Your task to perform on an android device: find snoozed emails in the gmail app Image 0: 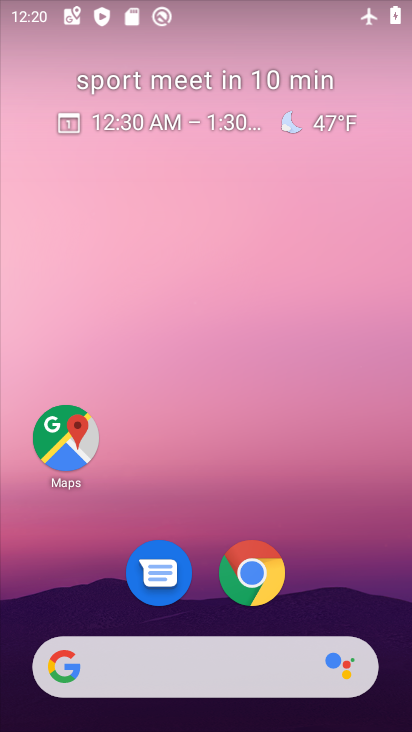
Step 0: drag from (222, 593) to (218, 248)
Your task to perform on an android device: find snoozed emails in the gmail app Image 1: 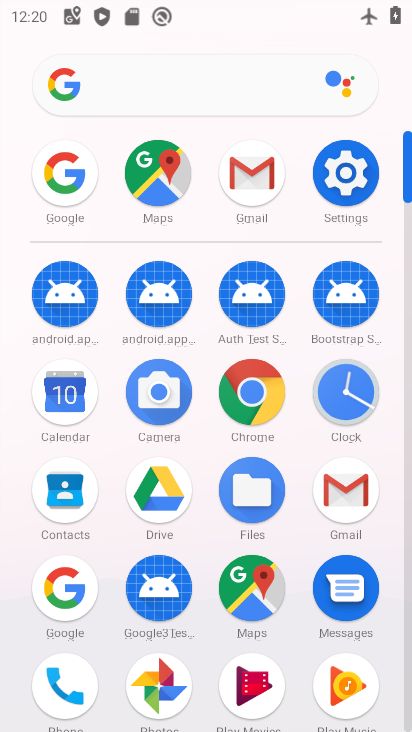
Step 1: click (353, 497)
Your task to perform on an android device: find snoozed emails in the gmail app Image 2: 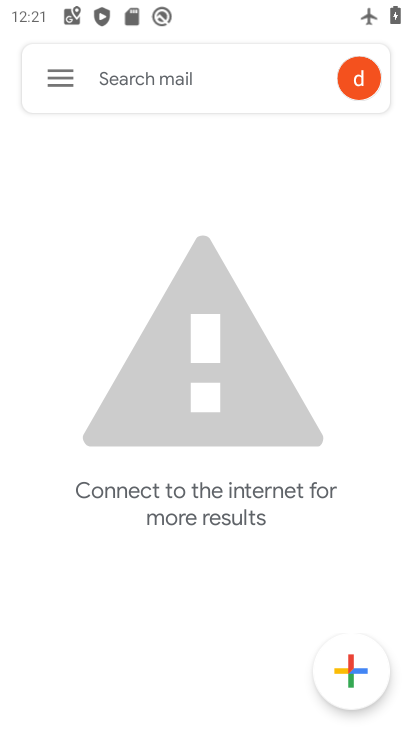
Step 2: drag from (213, 537) to (256, 314)
Your task to perform on an android device: find snoozed emails in the gmail app Image 3: 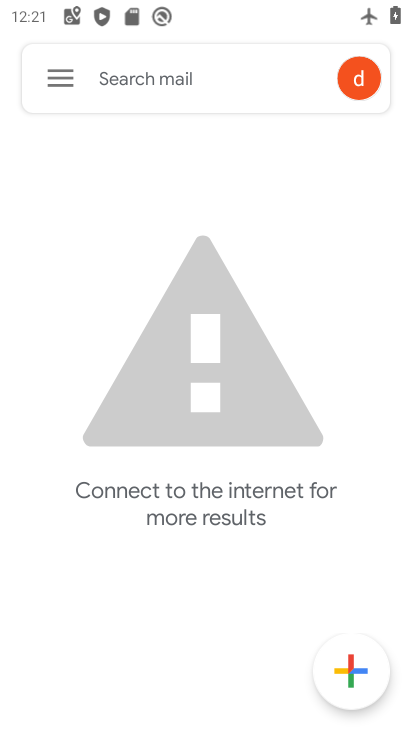
Step 3: click (56, 73)
Your task to perform on an android device: find snoozed emails in the gmail app Image 4: 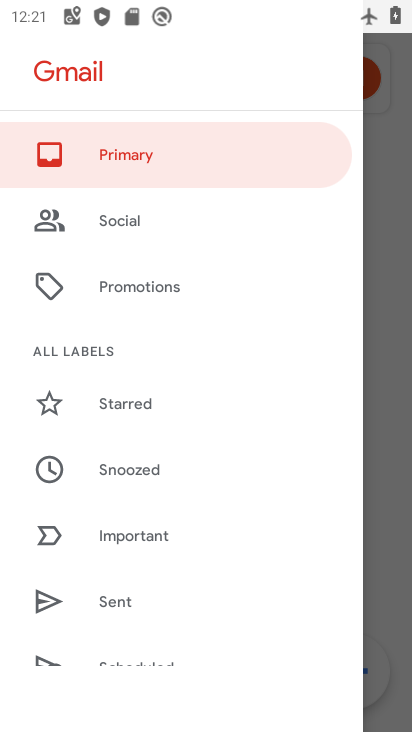
Step 4: click (142, 406)
Your task to perform on an android device: find snoozed emails in the gmail app Image 5: 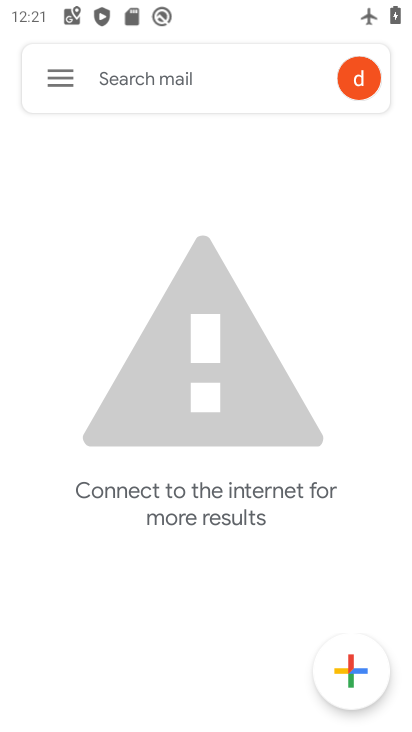
Step 5: drag from (201, 510) to (231, 278)
Your task to perform on an android device: find snoozed emails in the gmail app Image 6: 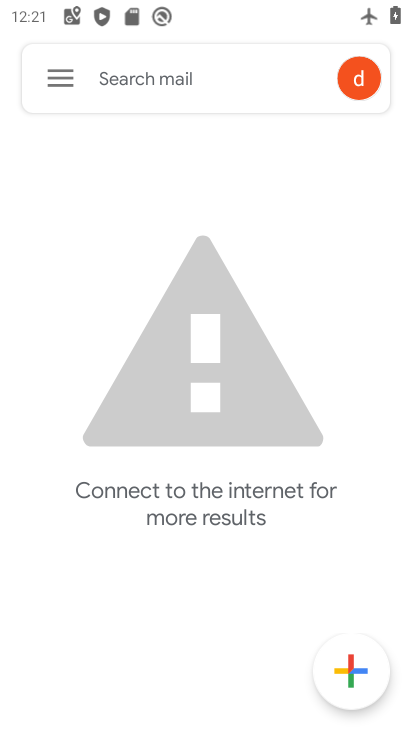
Step 6: click (45, 71)
Your task to perform on an android device: find snoozed emails in the gmail app Image 7: 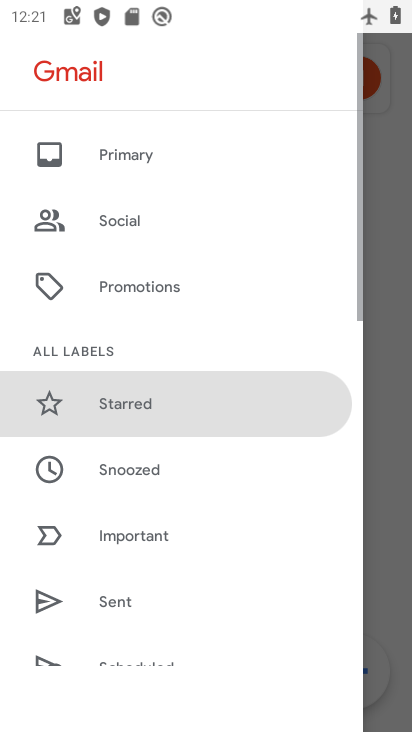
Step 7: click (138, 402)
Your task to perform on an android device: find snoozed emails in the gmail app Image 8: 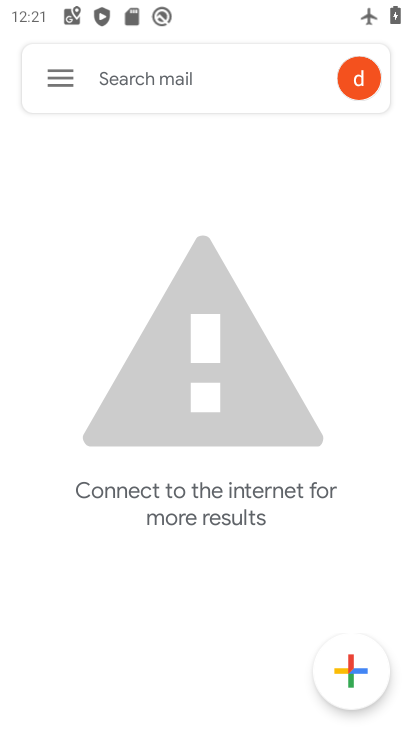
Step 8: task complete